Your task to perform on an android device: Search for alienware area 51 on target, select the first entry, add it to the cart, then select checkout. Image 0: 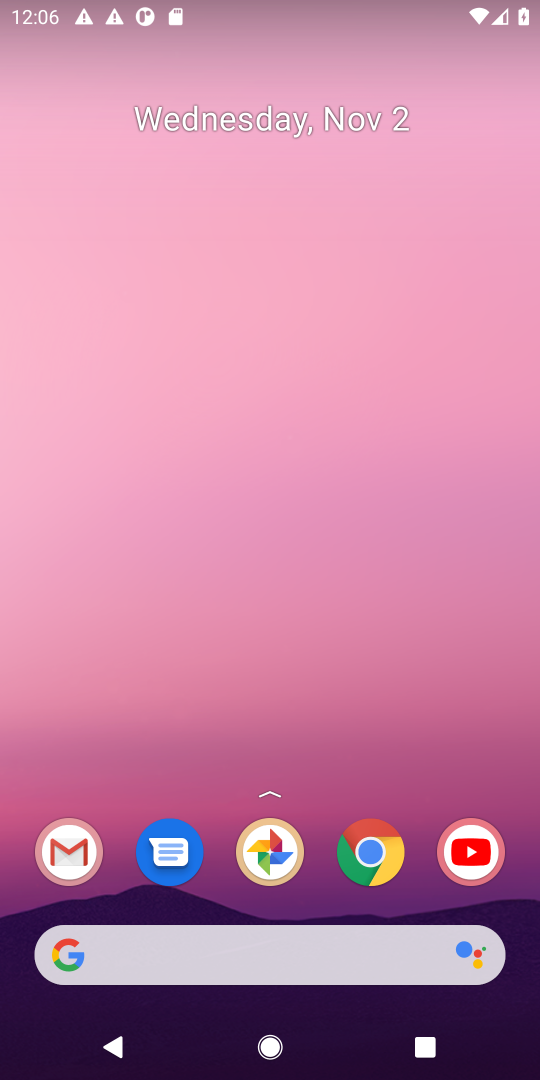
Step 0: click (61, 942)
Your task to perform on an android device: Search for alienware area 51 on target, select the first entry, add it to the cart, then select checkout. Image 1: 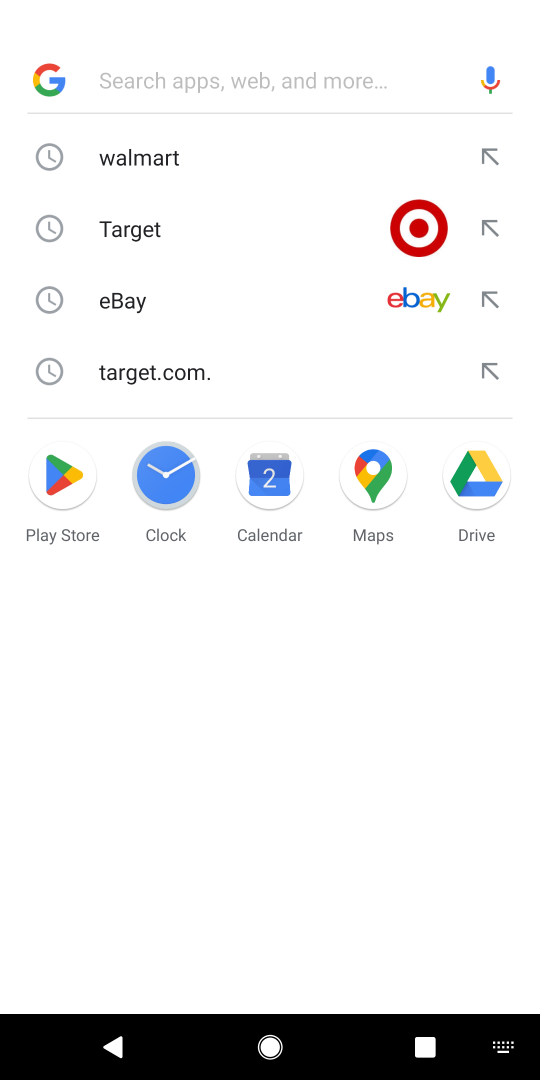
Step 1: click (120, 225)
Your task to perform on an android device: Search for alienware area 51 on target, select the first entry, add it to the cart, then select checkout. Image 2: 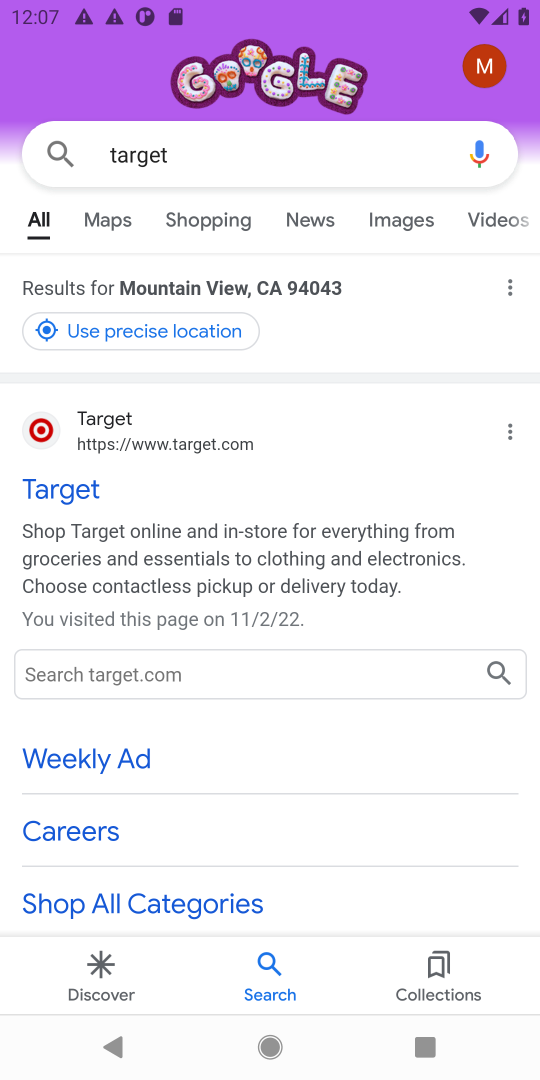
Step 2: click (187, 146)
Your task to perform on an android device: Search for alienware area 51 on target, select the first entry, add it to the cart, then select checkout. Image 3: 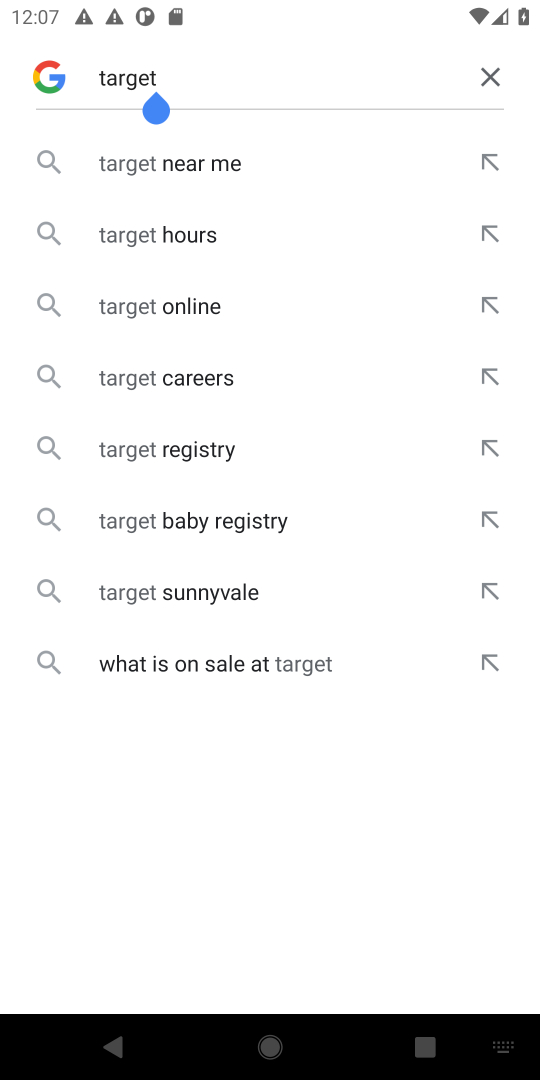
Step 3: click (491, 67)
Your task to perform on an android device: Search for alienware area 51 on target, select the first entry, add it to the cart, then select checkout. Image 4: 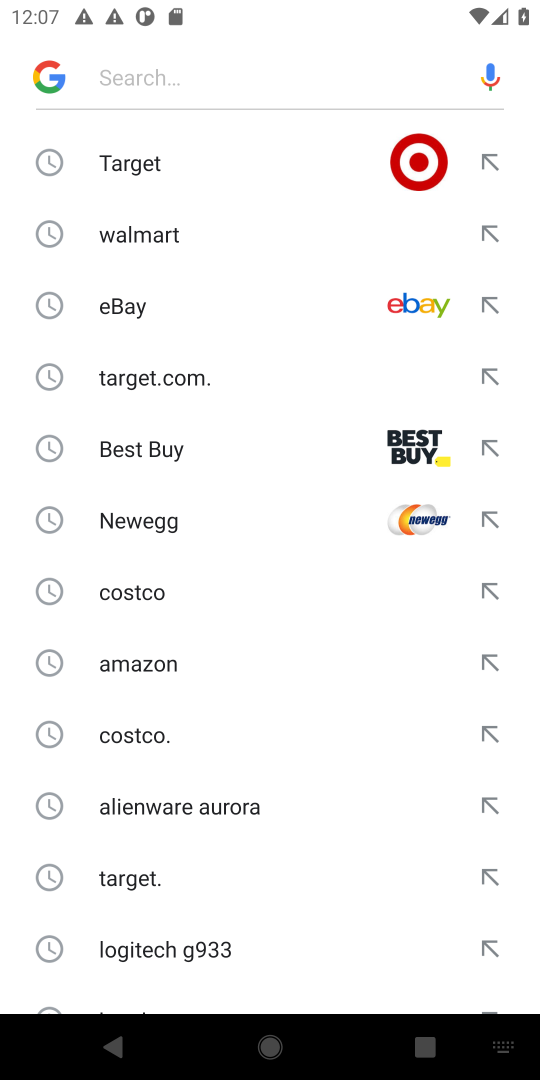
Step 4: type "alienware area 51 "
Your task to perform on an android device: Search for alienware area 51 on target, select the first entry, add it to the cart, then select checkout. Image 5: 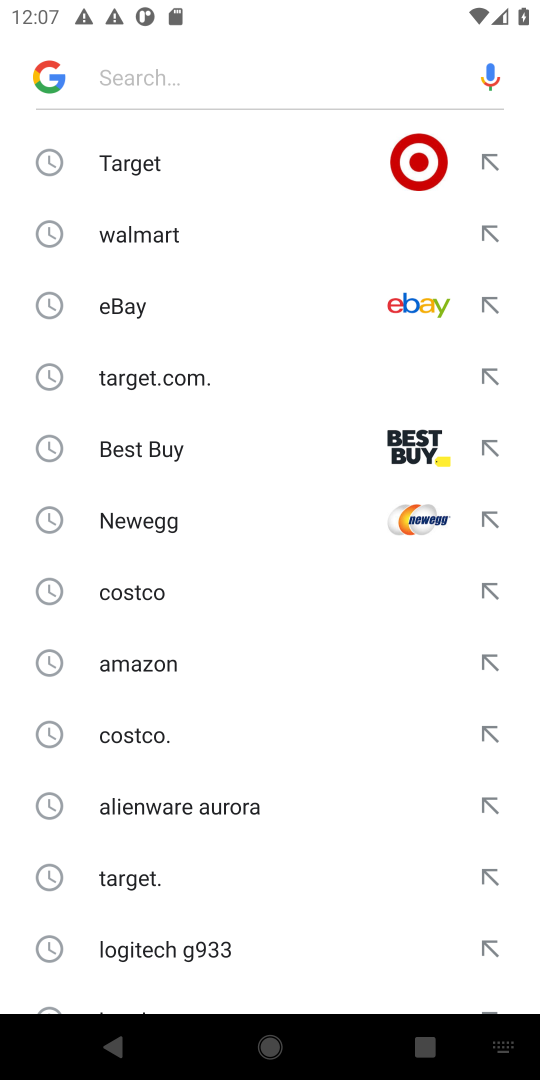
Step 5: click (111, 72)
Your task to perform on an android device: Search for alienware area 51 on target, select the first entry, add it to the cart, then select checkout. Image 6: 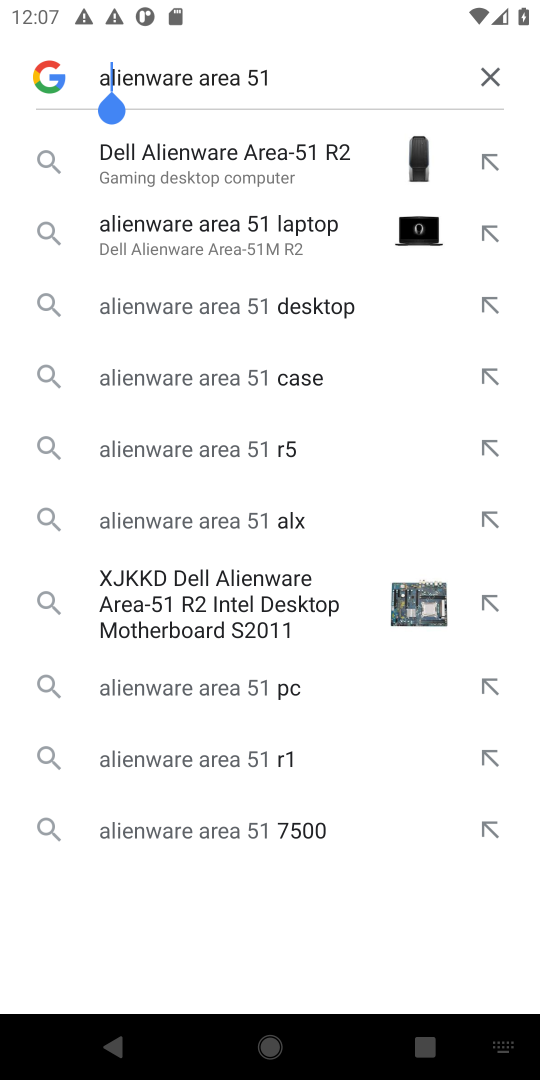
Step 6: click (488, 72)
Your task to perform on an android device: Search for alienware area 51 on target, select the first entry, add it to the cart, then select checkout. Image 7: 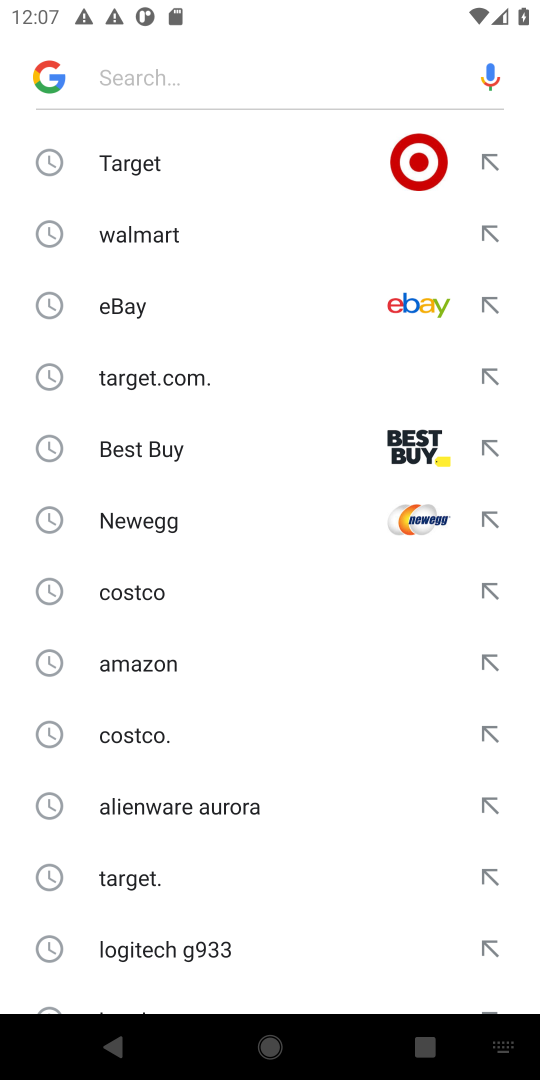
Step 7: click (420, 155)
Your task to perform on an android device: Search for alienware area 51 on target, select the first entry, add it to the cart, then select checkout. Image 8: 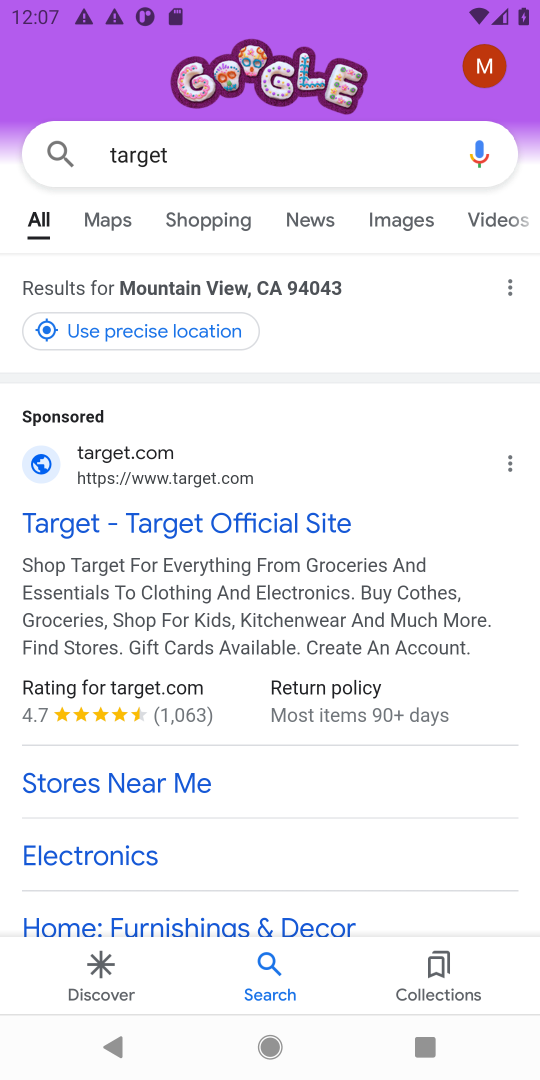
Step 8: drag from (247, 867) to (260, 462)
Your task to perform on an android device: Search for alienware area 51 on target, select the first entry, add it to the cart, then select checkout. Image 9: 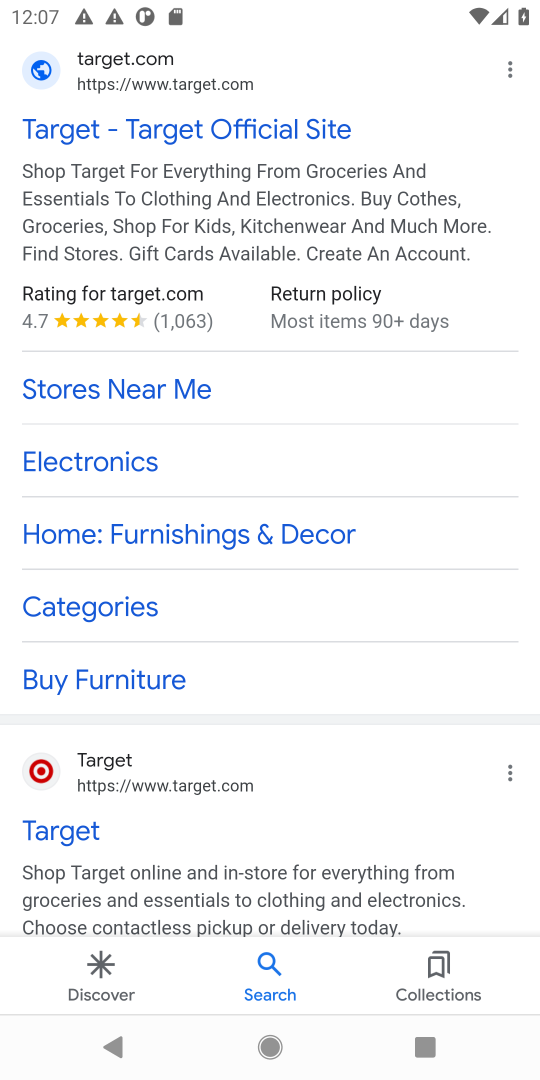
Step 9: click (73, 824)
Your task to perform on an android device: Search for alienware area 51 on target, select the first entry, add it to the cart, then select checkout. Image 10: 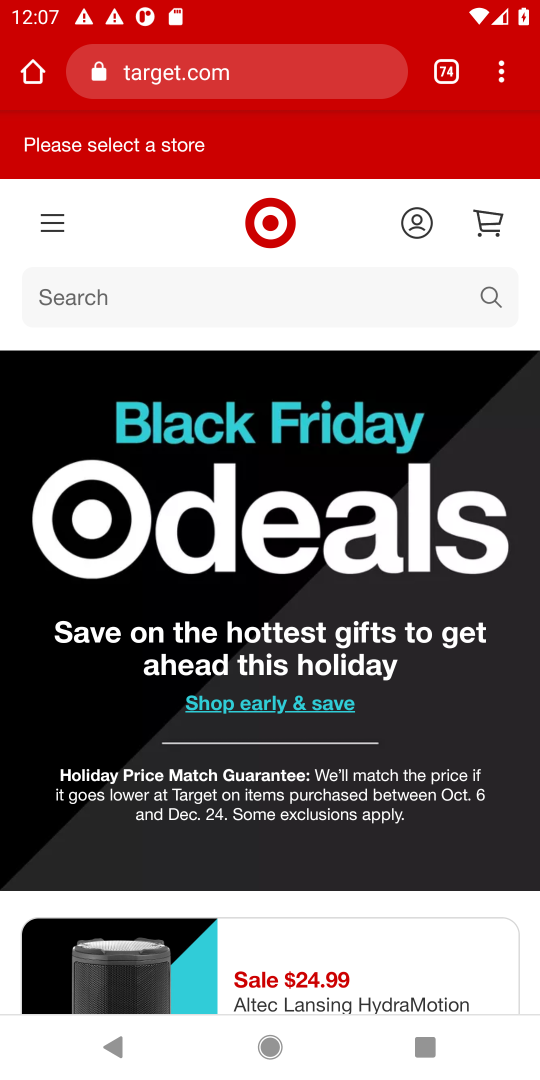
Step 10: click (165, 291)
Your task to perform on an android device: Search for alienware area 51 on target, select the first entry, add it to the cart, then select checkout. Image 11: 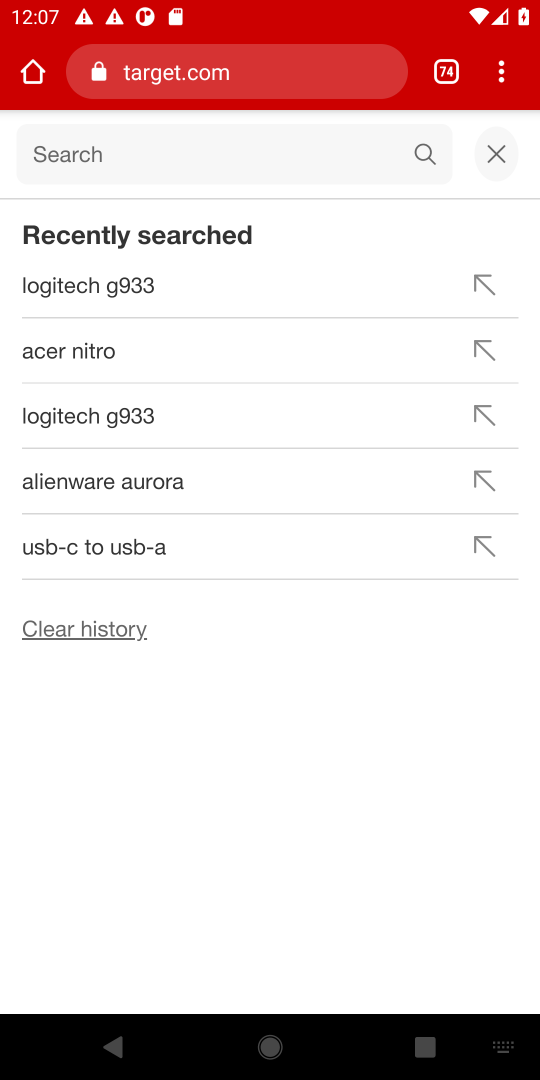
Step 11: type "alienware area 51 "
Your task to perform on an android device: Search for alienware area 51 on target, select the first entry, add it to the cart, then select checkout. Image 12: 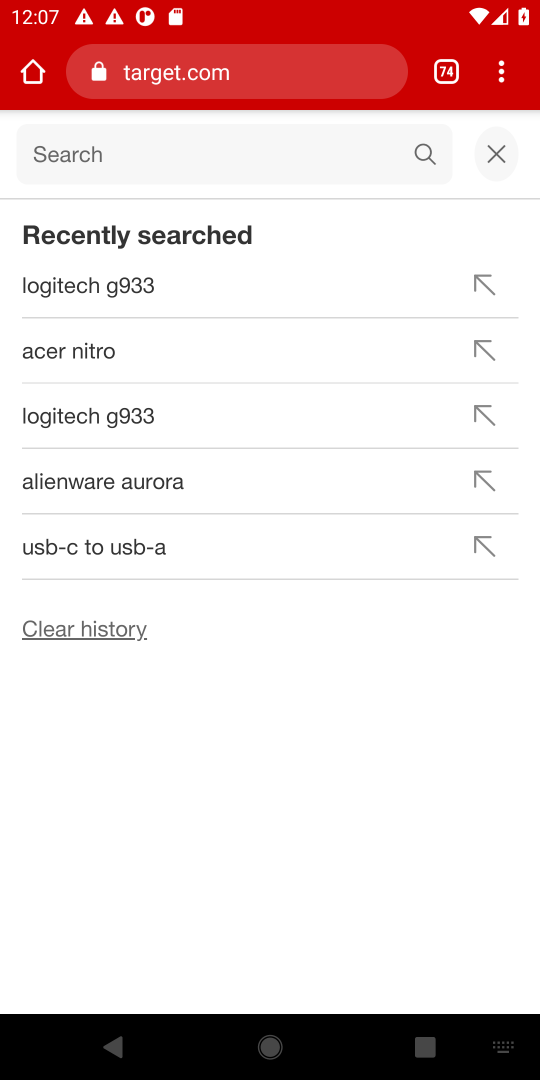
Step 12: click (102, 156)
Your task to perform on an android device: Search for alienware area 51 on target, select the first entry, add it to the cart, then select checkout. Image 13: 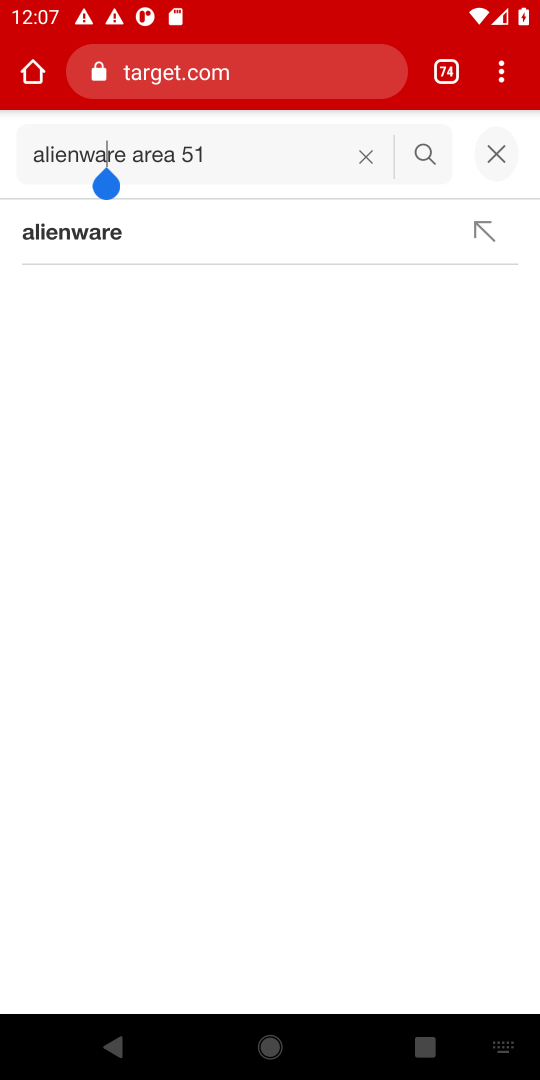
Step 13: press enter
Your task to perform on an android device: Search for alienware area 51 on target, select the first entry, add it to the cart, then select checkout. Image 14: 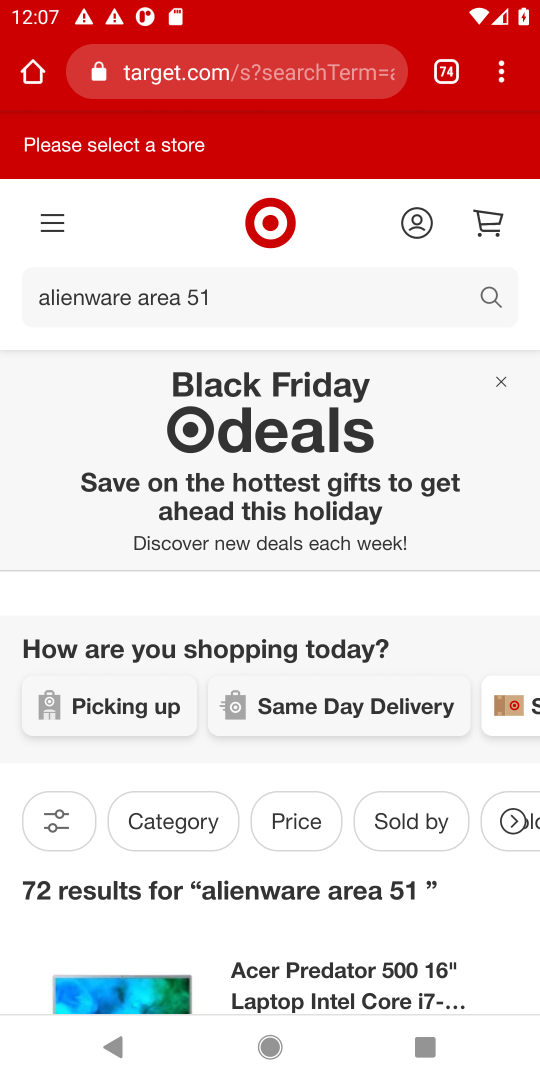
Step 14: task complete